Your task to perform on an android device: Open settings Image 0: 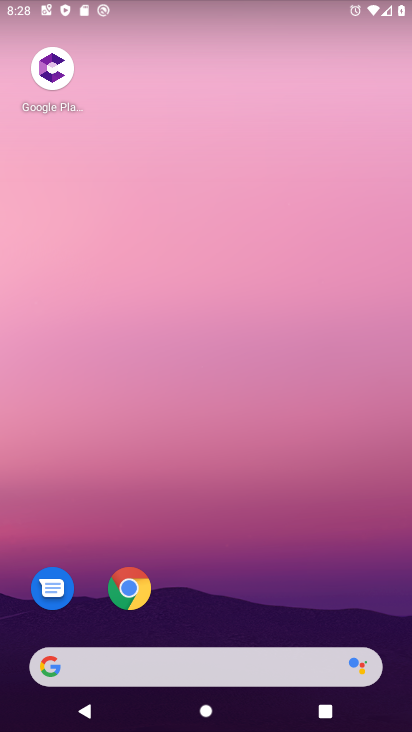
Step 0: drag from (240, 699) to (232, 71)
Your task to perform on an android device: Open settings Image 1: 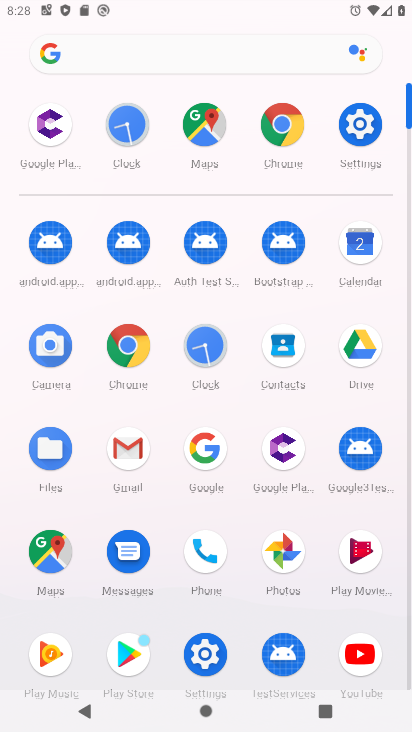
Step 1: click (362, 129)
Your task to perform on an android device: Open settings Image 2: 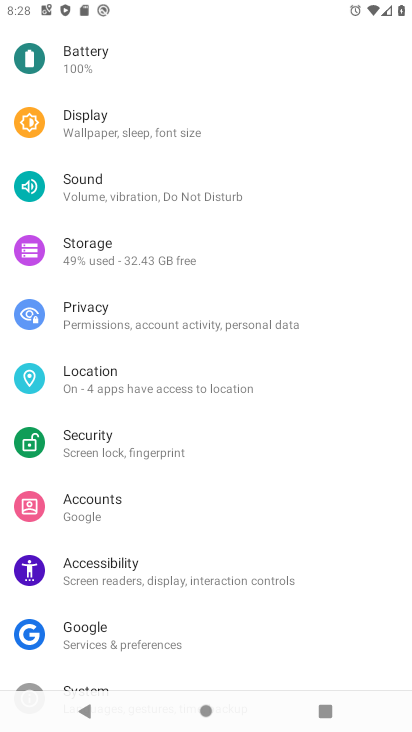
Step 2: task complete